Your task to perform on an android device: Find the nearest electronics store that's open Image 0: 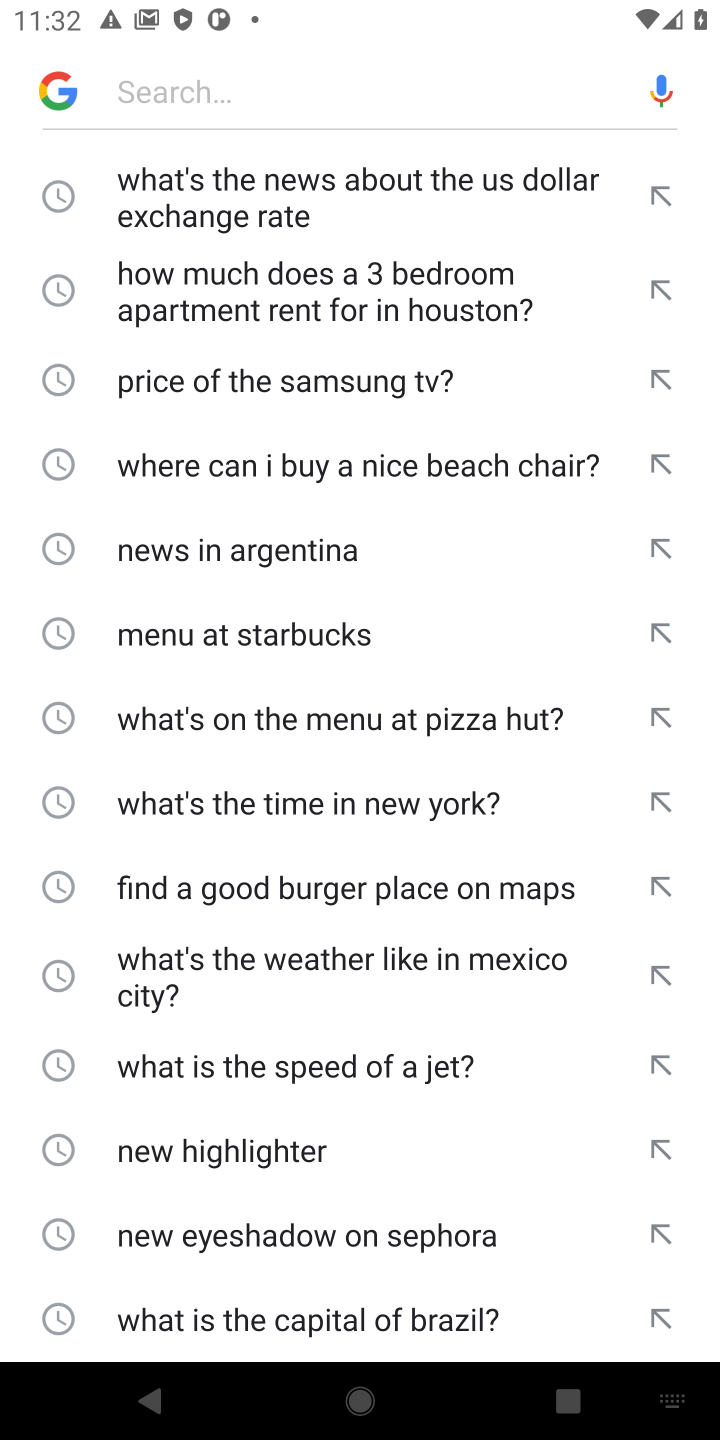
Step 0: press home button
Your task to perform on an android device: Find the nearest electronics store that's open Image 1: 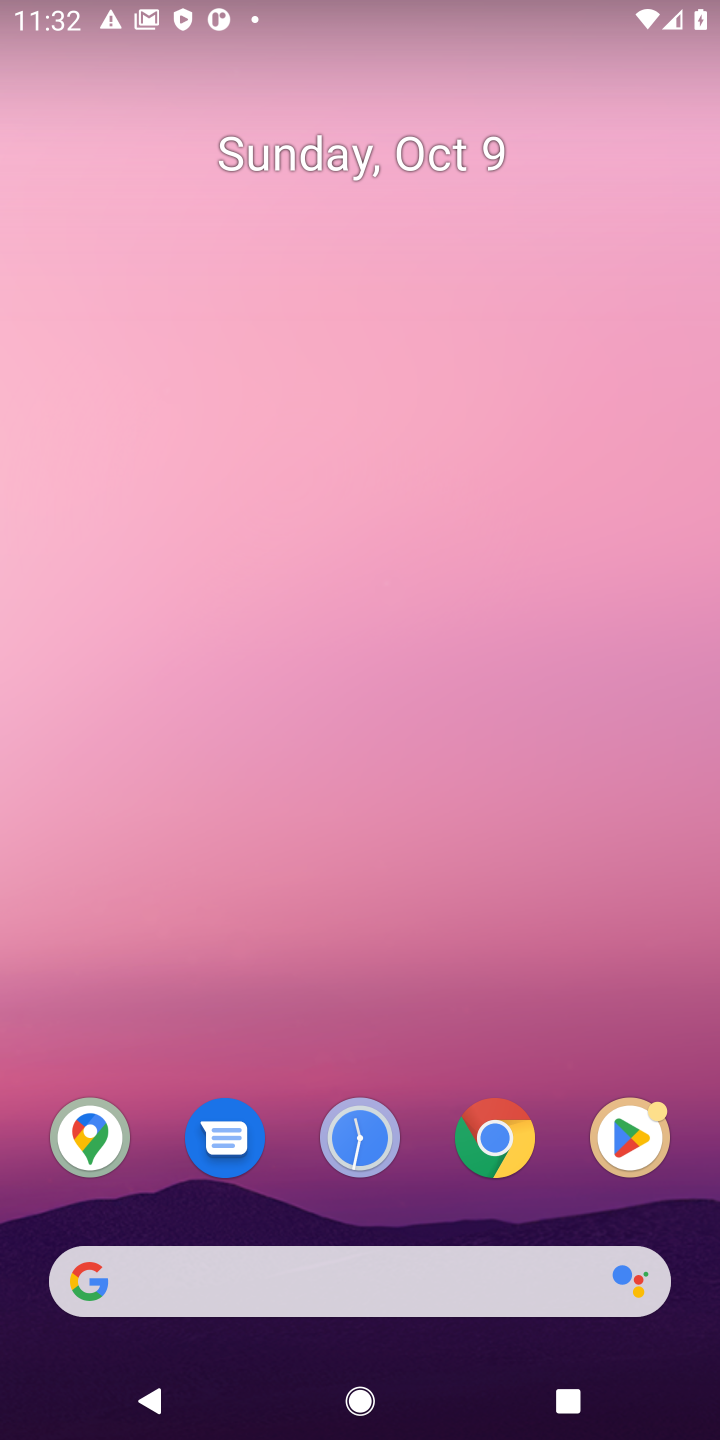
Step 1: click (522, 1150)
Your task to perform on an android device: Find the nearest electronics store that's open Image 2: 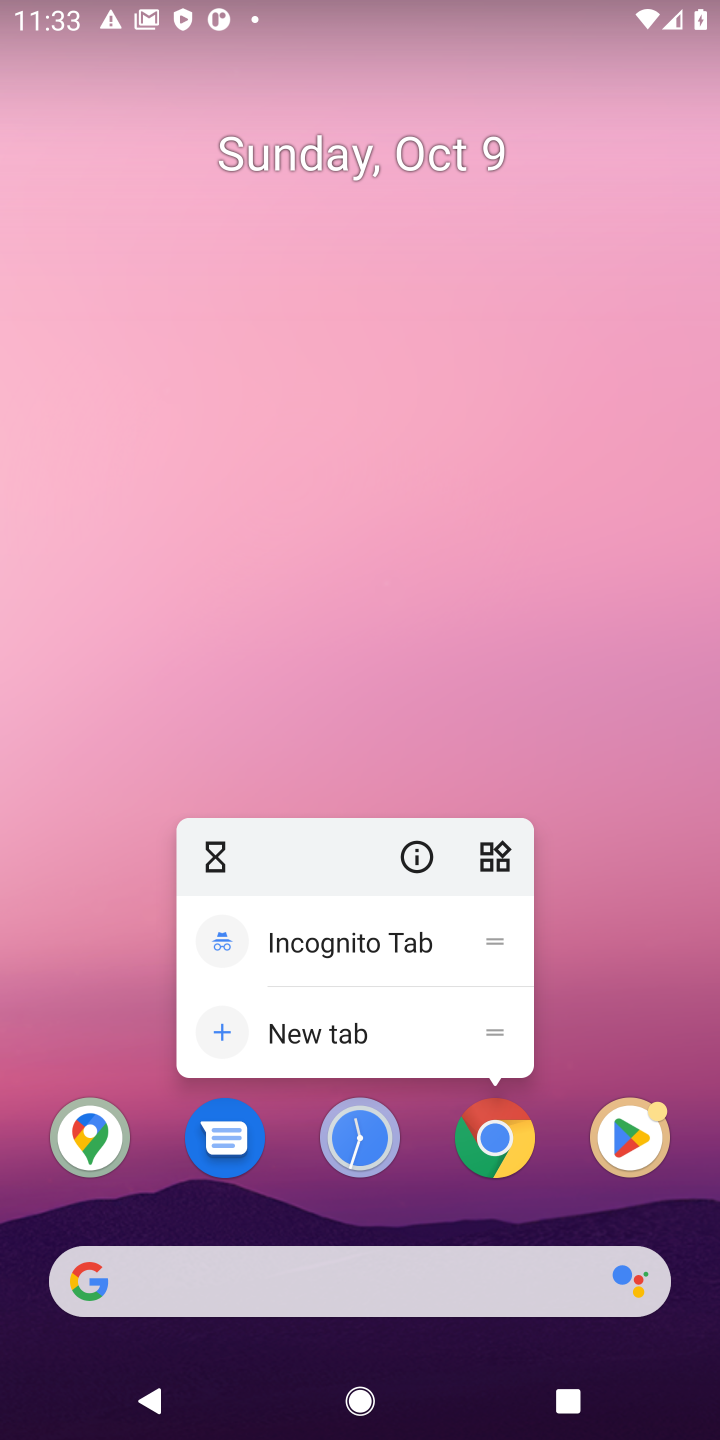
Step 2: click (491, 1141)
Your task to perform on an android device: Find the nearest electronics store that's open Image 3: 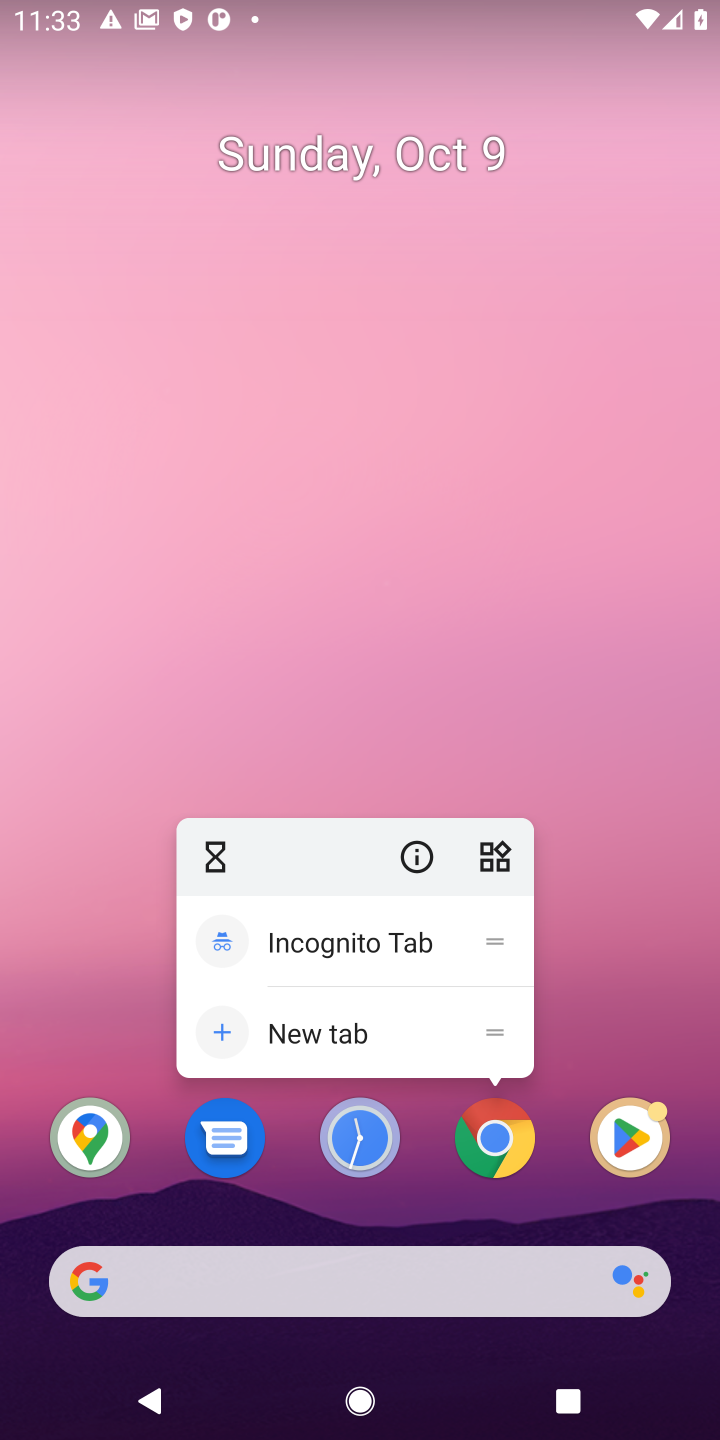
Step 3: click (491, 1141)
Your task to perform on an android device: Find the nearest electronics store that's open Image 4: 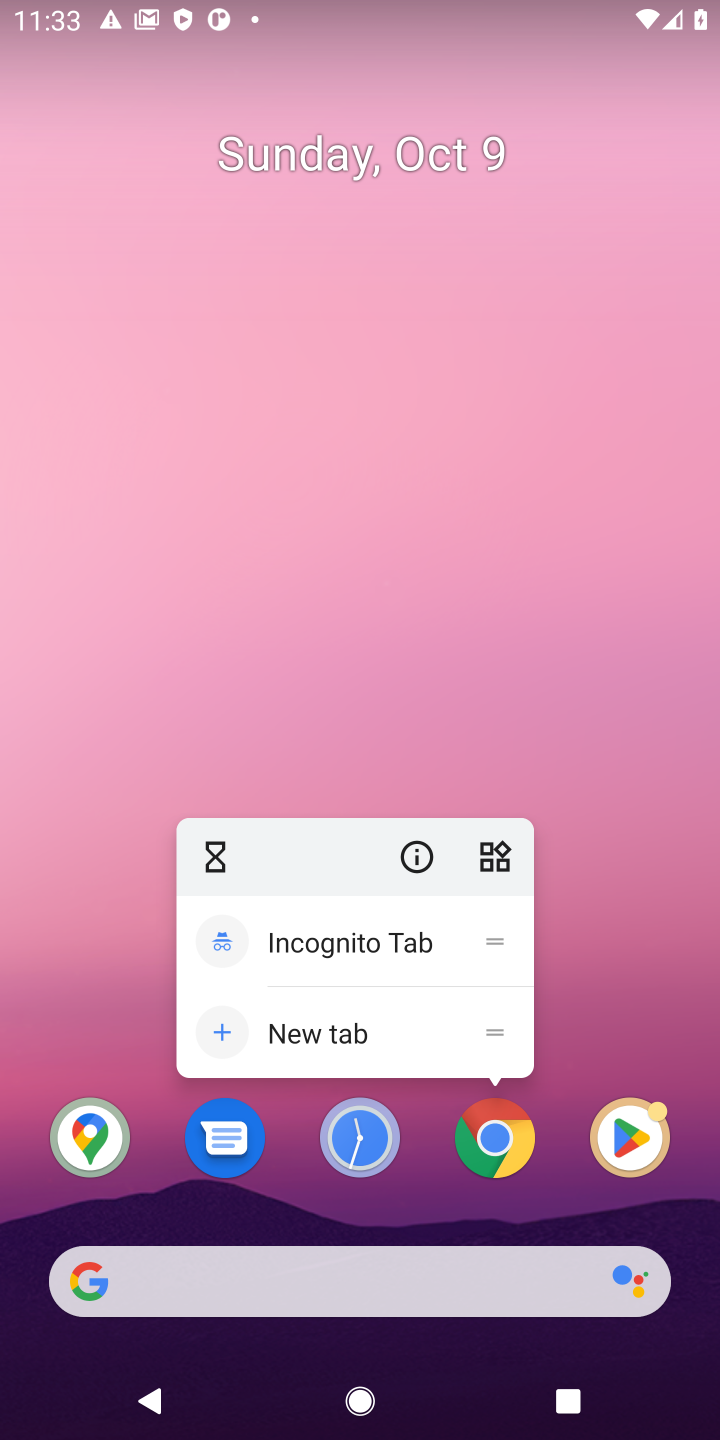
Step 4: click (502, 1142)
Your task to perform on an android device: Find the nearest electronics store that's open Image 5: 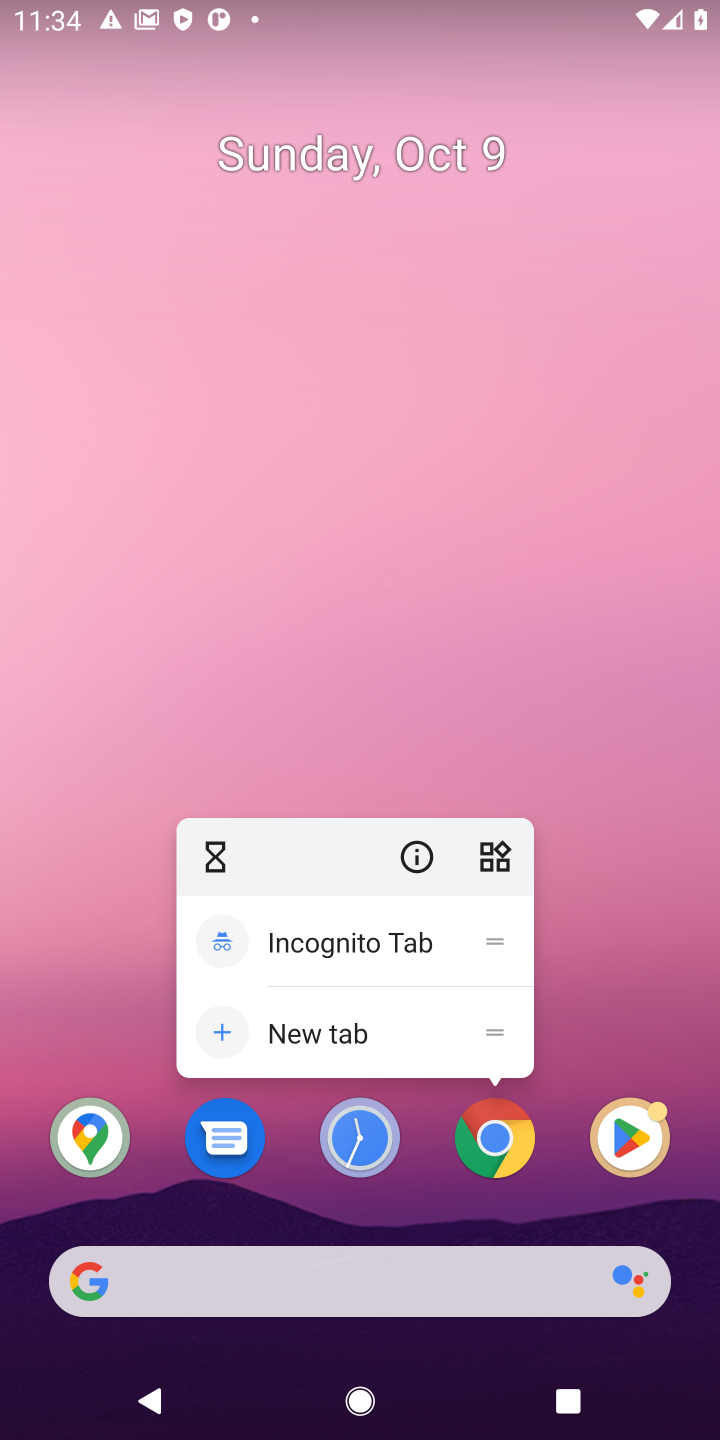
Step 5: click (502, 1142)
Your task to perform on an android device: Find the nearest electronics store that's open Image 6: 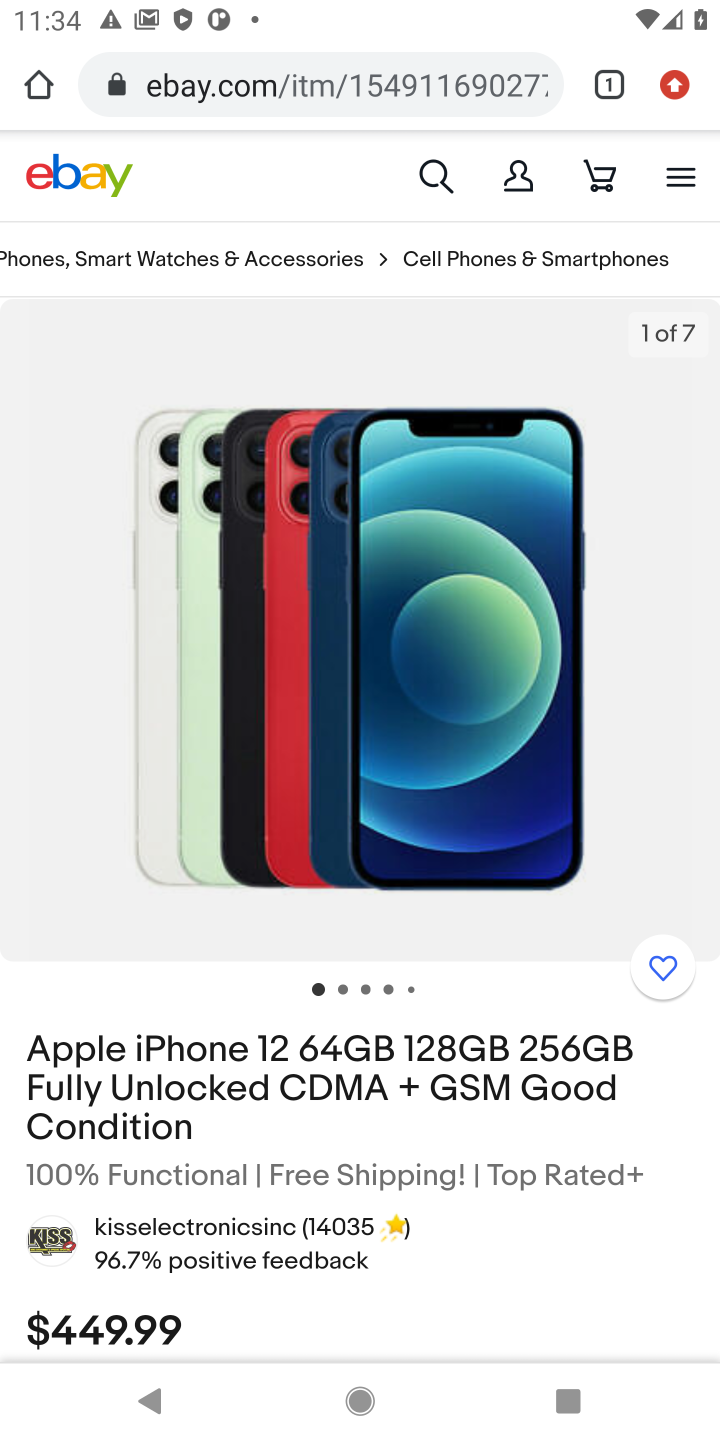
Step 6: click (495, 71)
Your task to perform on an android device: Find the nearest electronics store that's open Image 7: 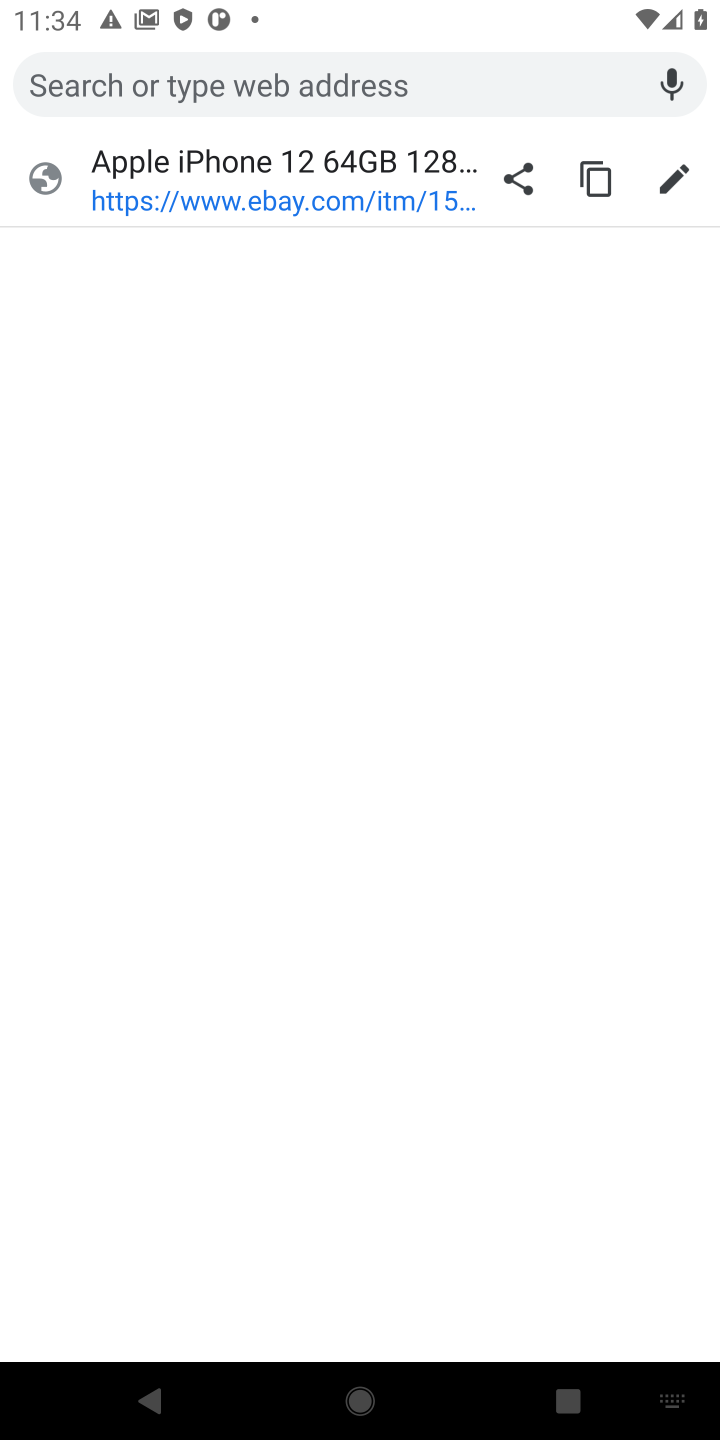
Step 7: type "Find the nearest electronics store that's open"
Your task to perform on an android device: Find the nearest electronics store that's open Image 8: 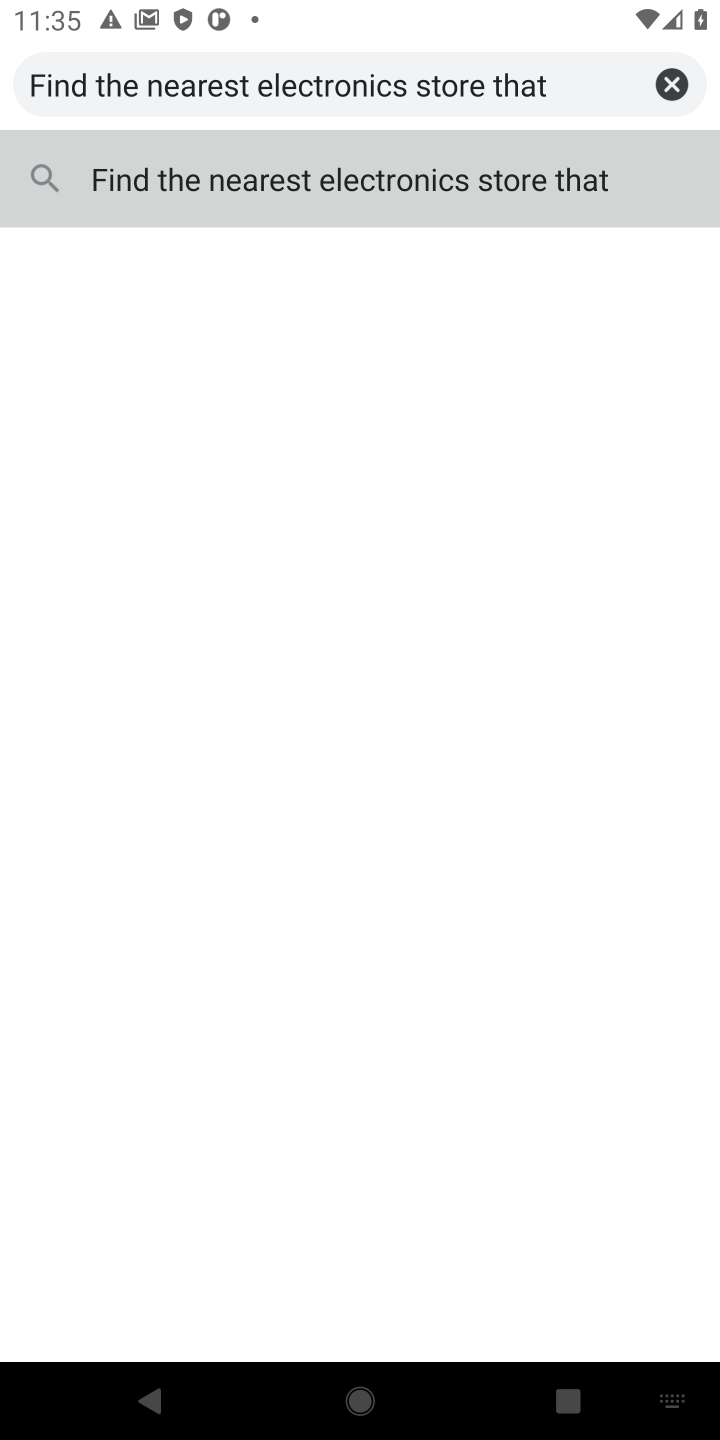
Step 8: type "Find the nearest electronics store that's open"
Your task to perform on an android device: Find the nearest electronics store that's open Image 9: 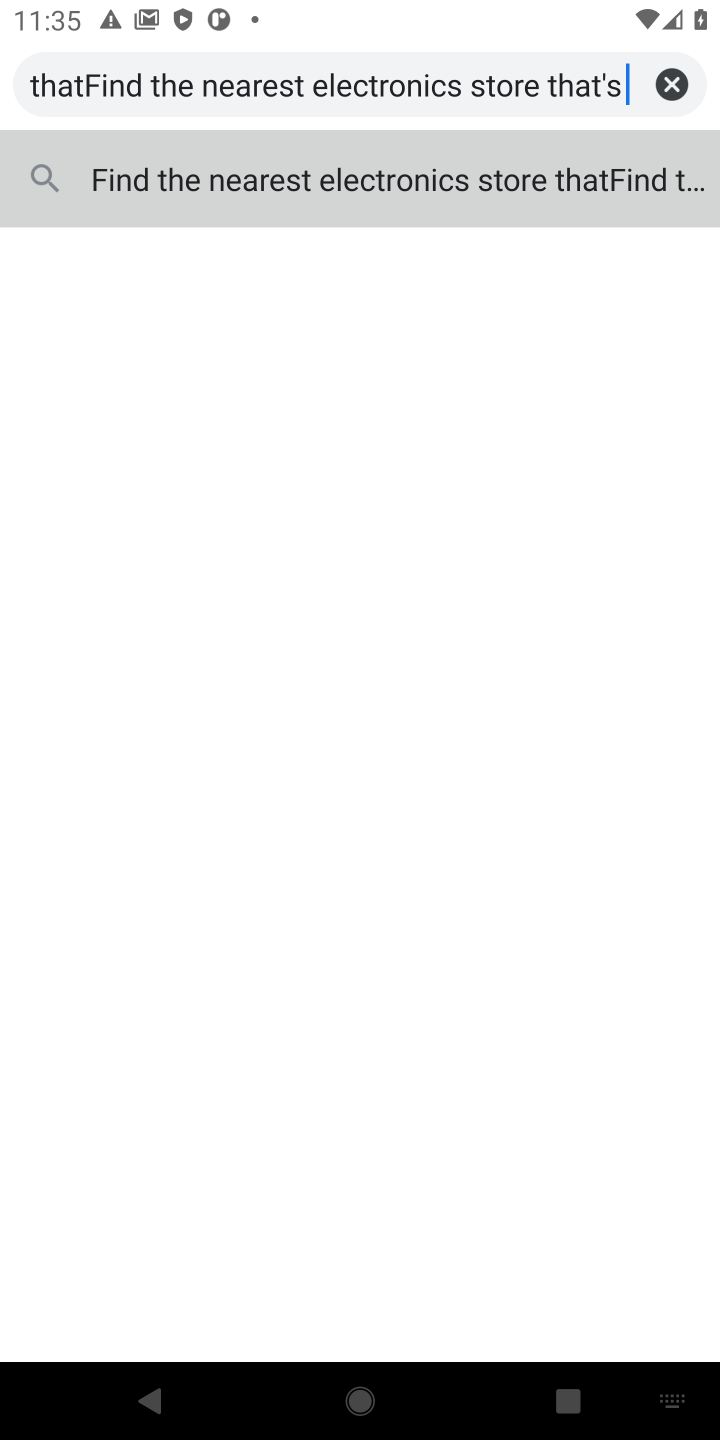
Step 9: type "open"
Your task to perform on an android device: Find the nearest electronics store that's open Image 10: 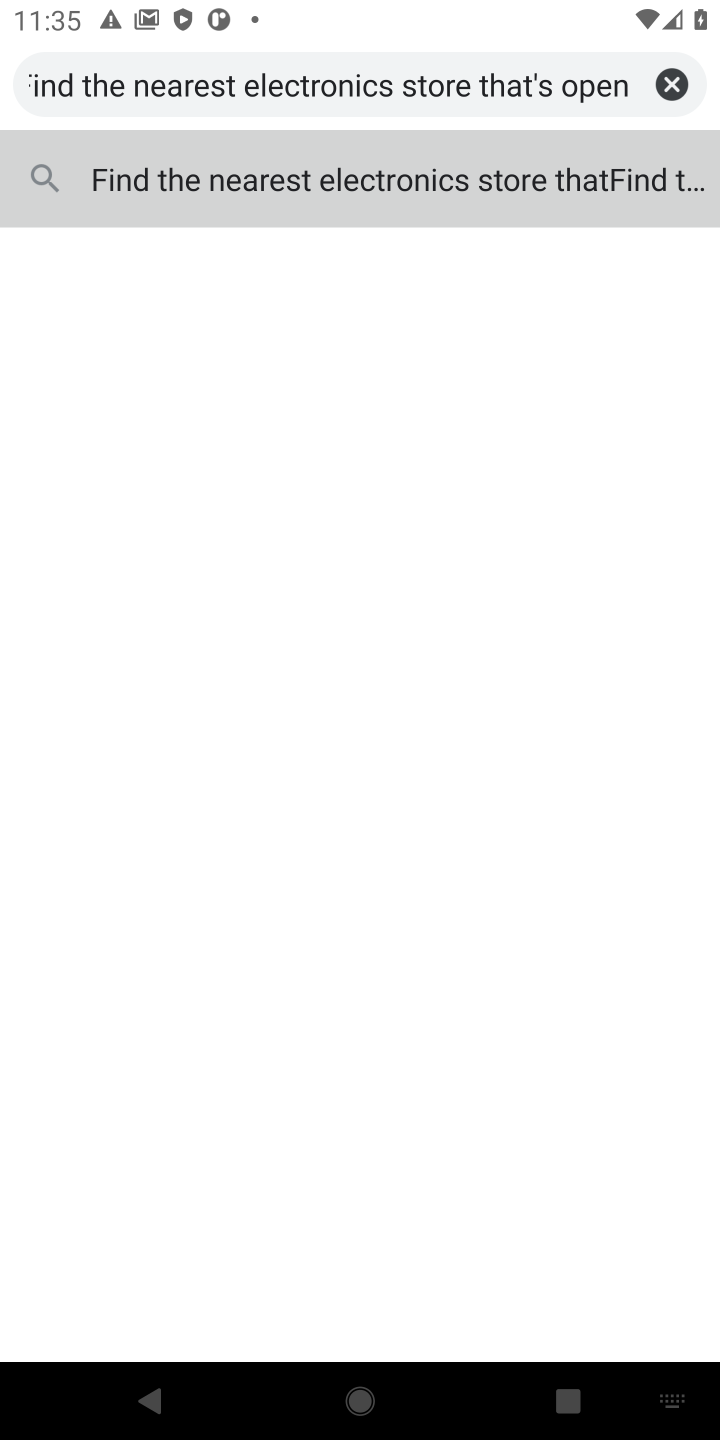
Step 10: press enter
Your task to perform on an android device: Find the nearest electronics store that's open Image 11: 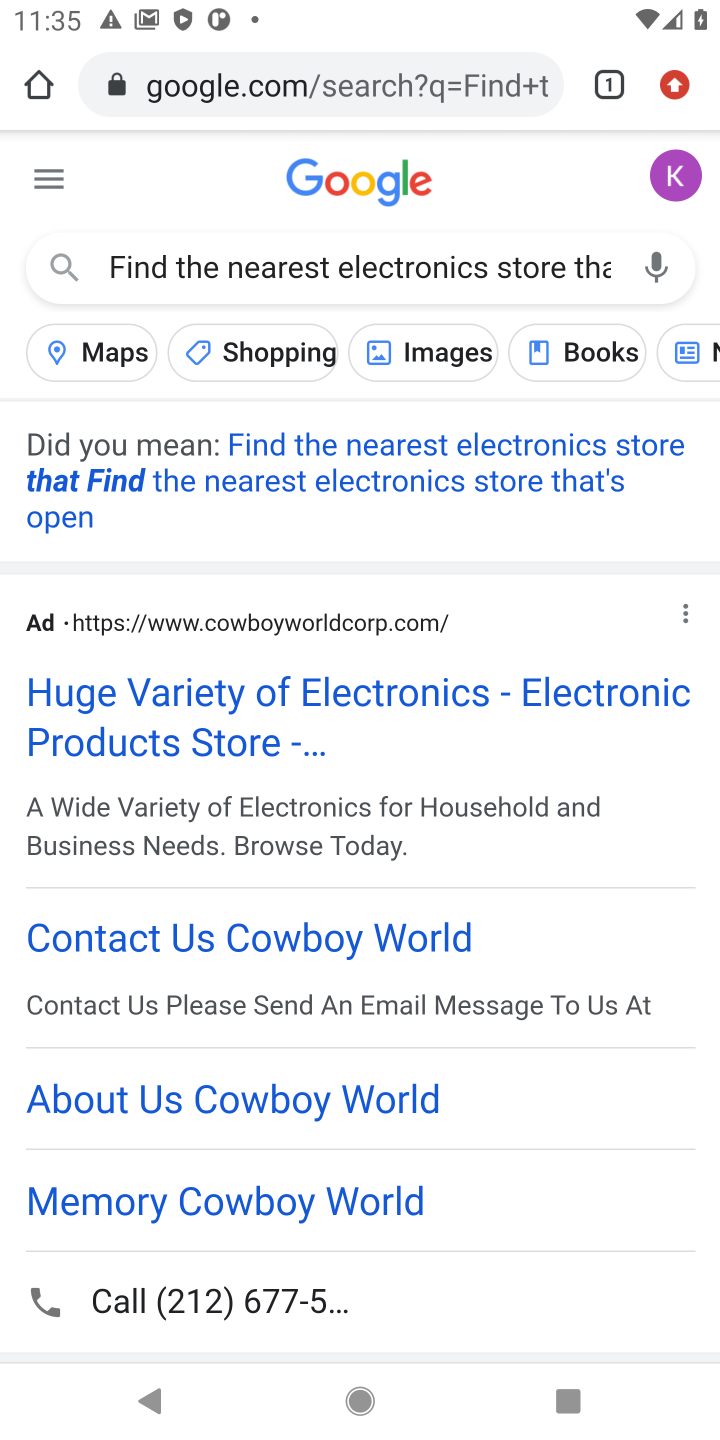
Step 11: click (503, 471)
Your task to perform on an android device: Find the nearest electronics store that's open Image 12: 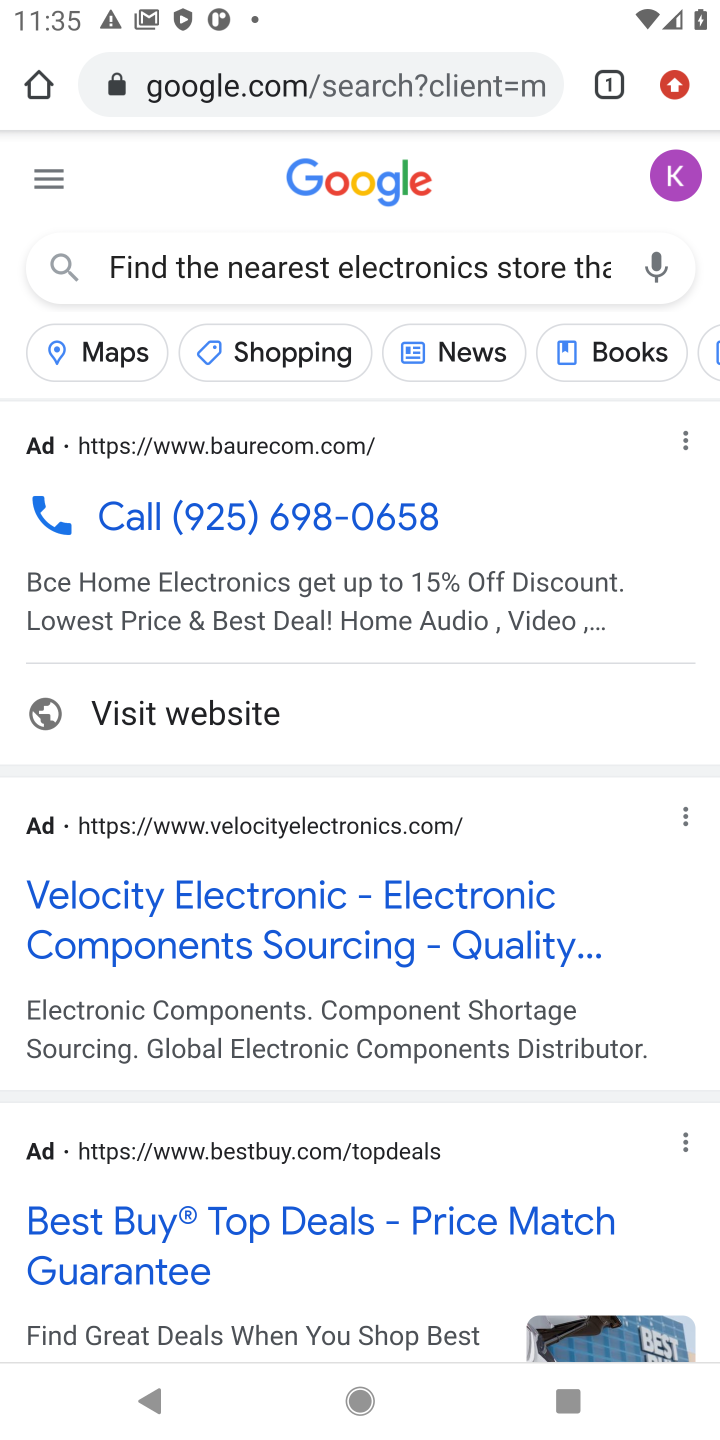
Step 12: task complete